Your task to perform on an android device: turn off javascript in the chrome app Image 0: 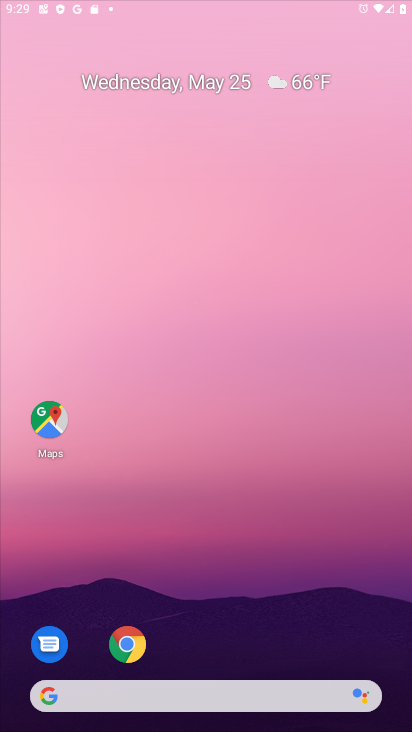
Step 0: press home button
Your task to perform on an android device: turn off javascript in the chrome app Image 1: 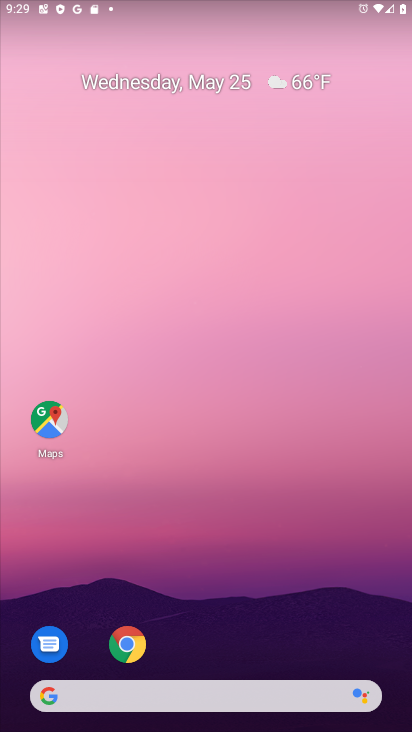
Step 1: click (125, 639)
Your task to perform on an android device: turn off javascript in the chrome app Image 2: 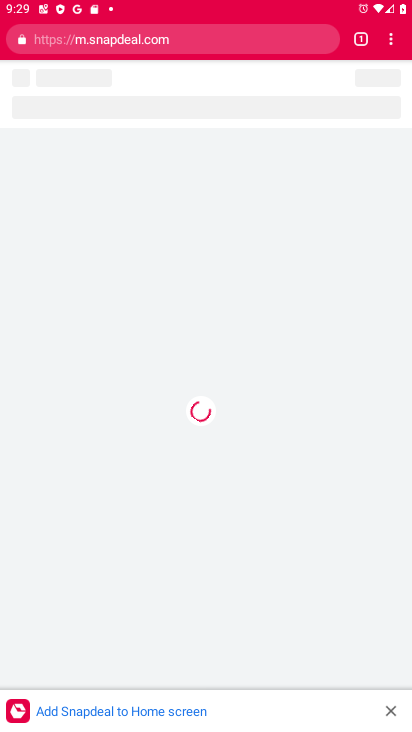
Step 2: click (361, 36)
Your task to perform on an android device: turn off javascript in the chrome app Image 3: 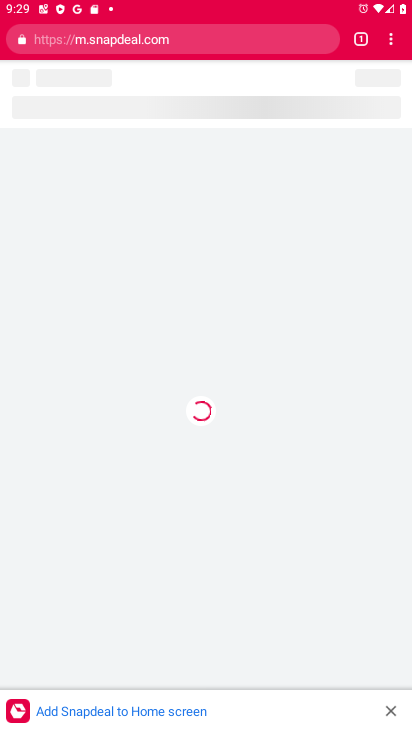
Step 3: click (356, 33)
Your task to perform on an android device: turn off javascript in the chrome app Image 4: 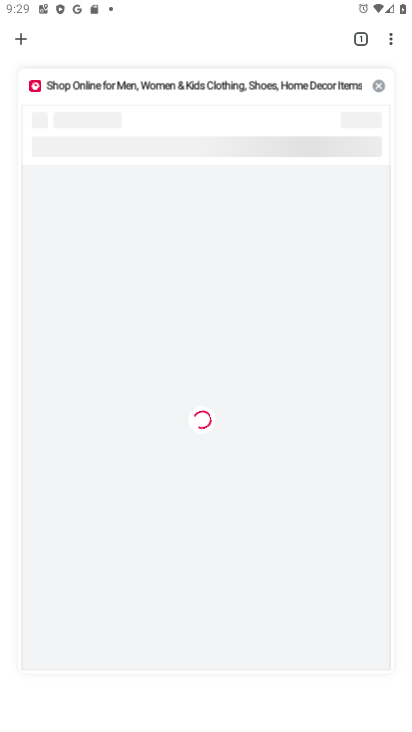
Step 4: click (379, 81)
Your task to perform on an android device: turn off javascript in the chrome app Image 5: 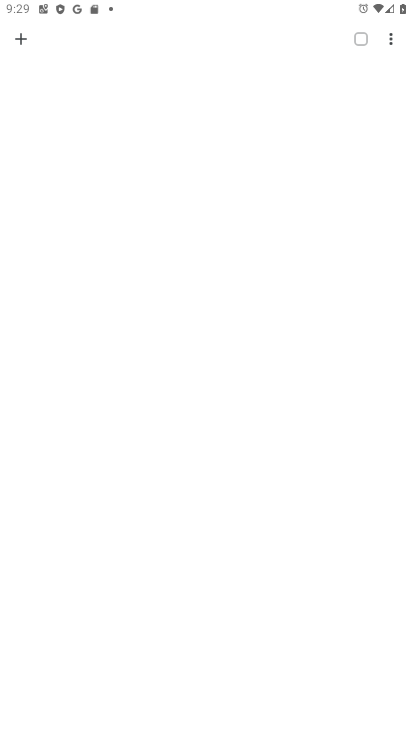
Step 5: click (15, 38)
Your task to perform on an android device: turn off javascript in the chrome app Image 6: 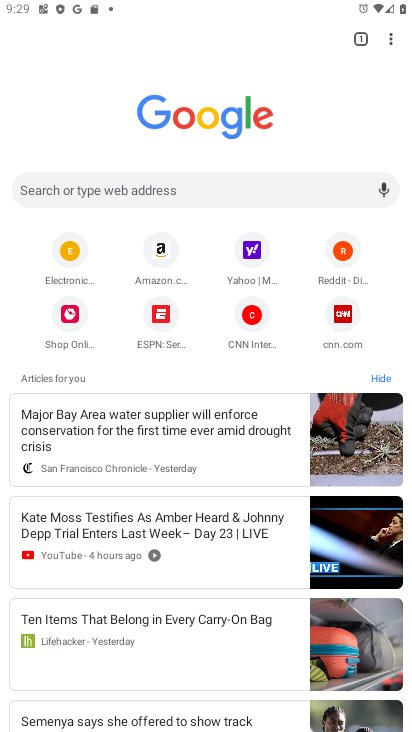
Step 6: click (391, 35)
Your task to perform on an android device: turn off javascript in the chrome app Image 7: 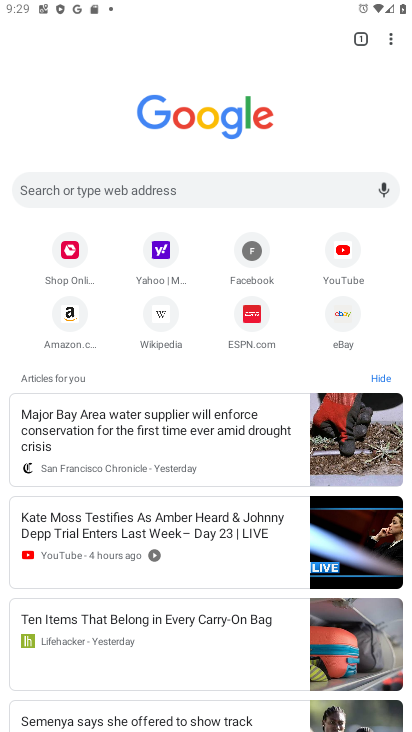
Step 7: click (391, 36)
Your task to perform on an android device: turn off javascript in the chrome app Image 8: 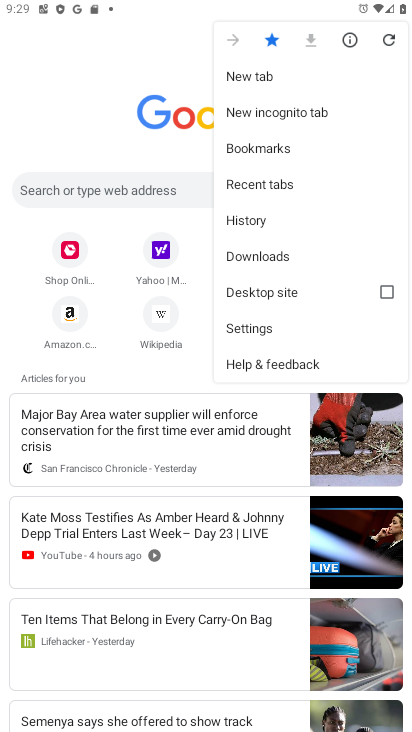
Step 8: click (275, 323)
Your task to perform on an android device: turn off javascript in the chrome app Image 9: 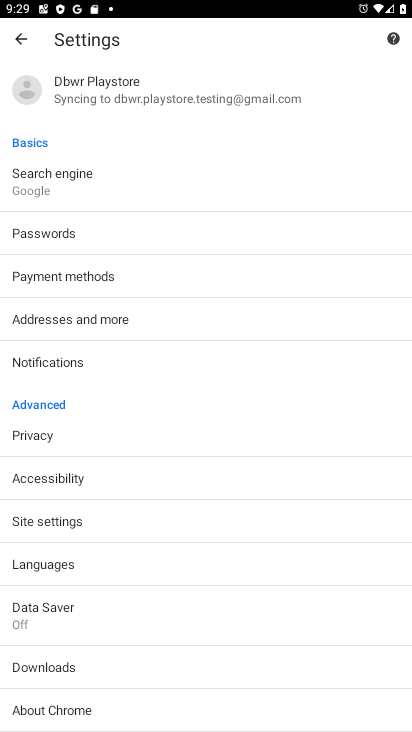
Step 9: click (94, 515)
Your task to perform on an android device: turn off javascript in the chrome app Image 10: 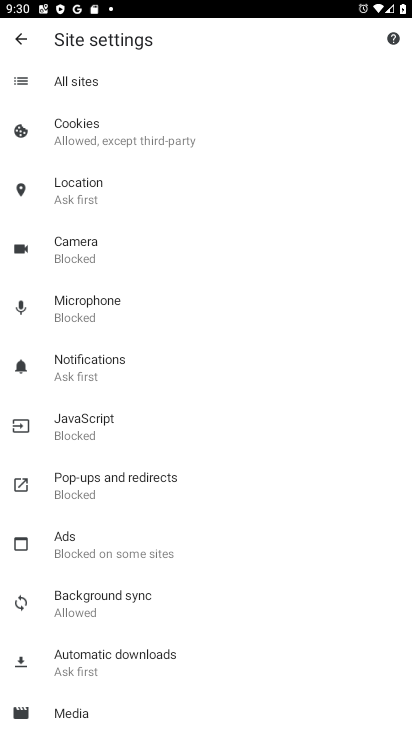
Step 10: click (112, 431)
Your task to perform on an android device: turn off javascript in the chrome app Image 11: 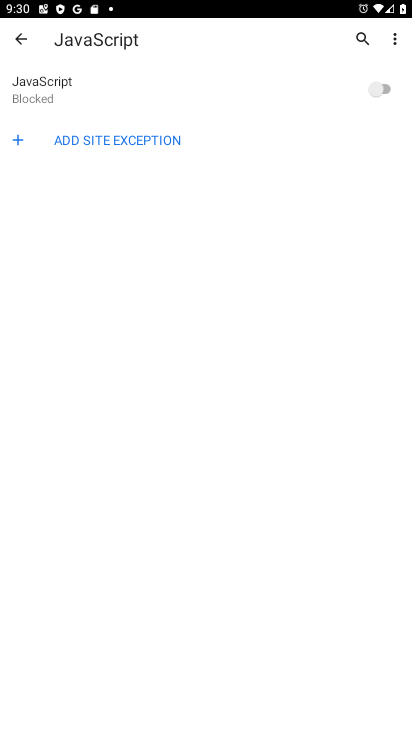
Step 11: task complete